Your task to perform on an android device: set the timer Image 0: 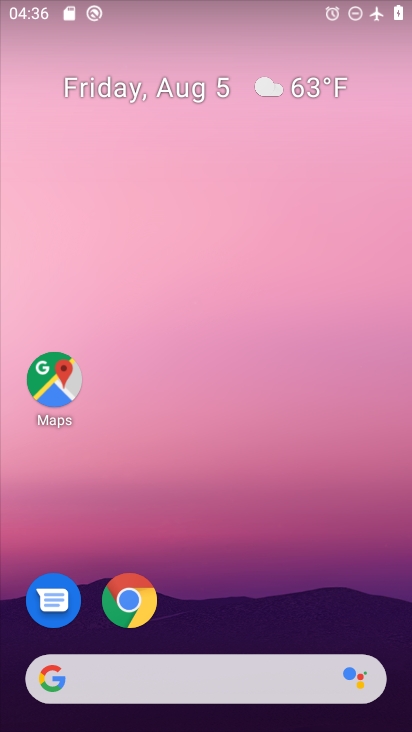
Step 0: drag from (206, 686) to (250, 180)
Your task to perform on an android device: set the timer Image 1: 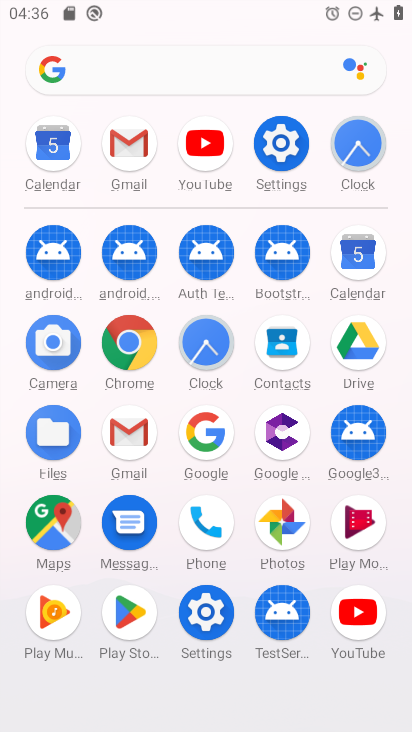
Step 1: click (360, 143)
Your task to perform on an android device: set the timer Image 2: 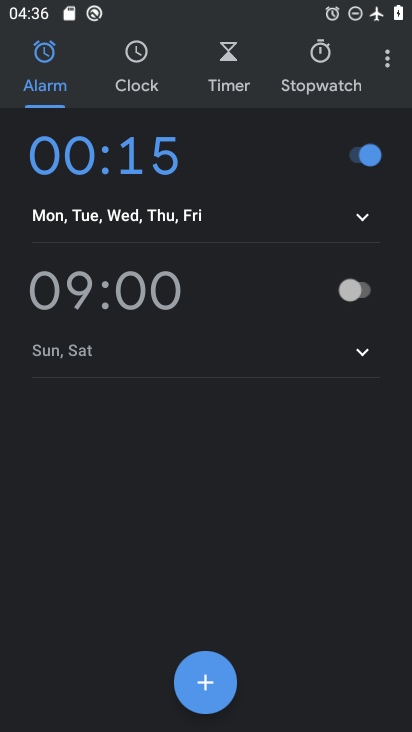
Step 2: click (229, 50)
Your task to perform on an android device: set the timer Image 3: 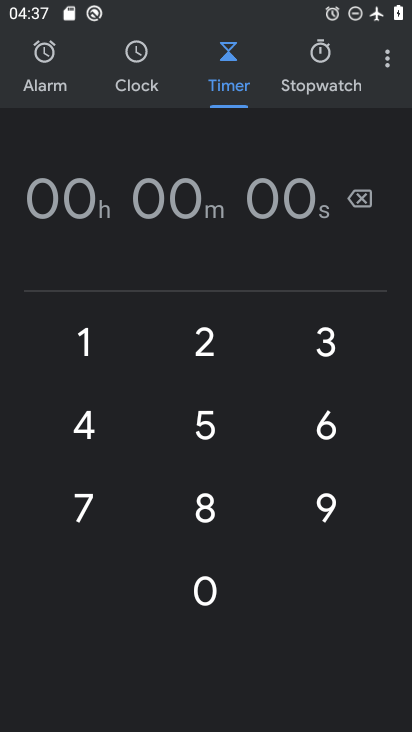
Step 3: click (90, 339)
Your task to perform on an android device: set the timer Image 4: 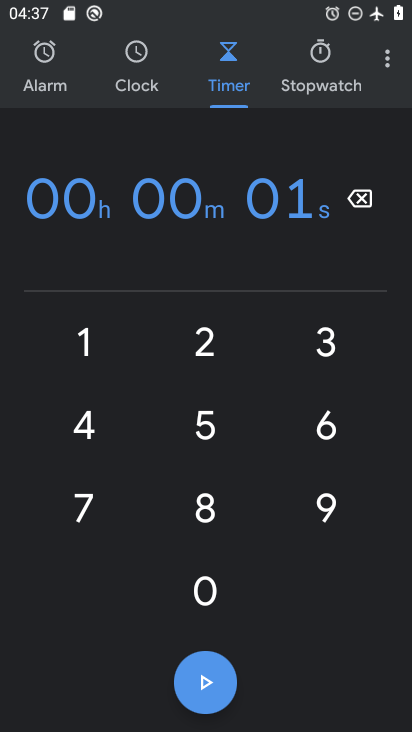
Step 4: click (232, 357)
Your task to perform on an android device: set the timer Image 5: 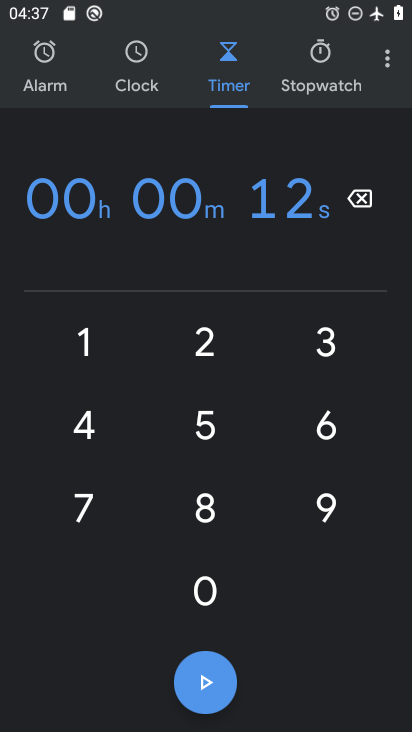
Step 5: click (328, 433)
Your task to perform on an android device: set the timer Image 6: 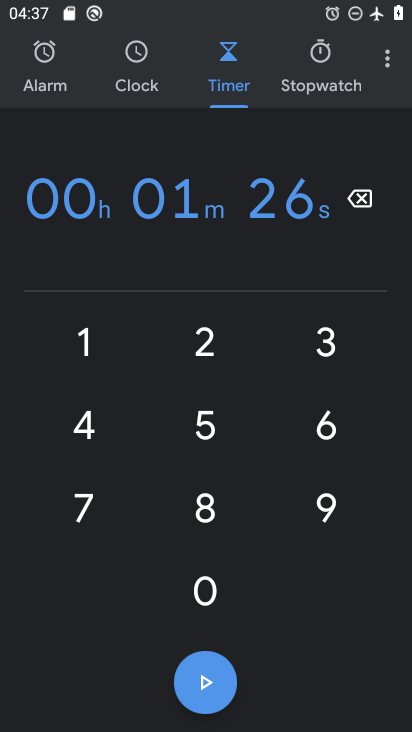
Step 6: click (183, 684)
Your task to perform on an android device: set the timer Image 7: 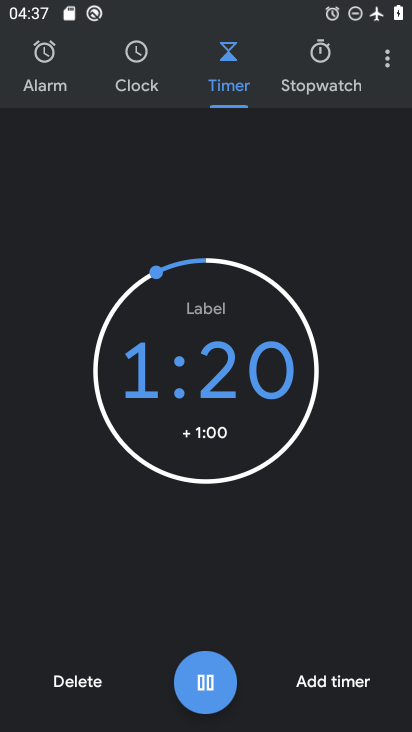
Step 7: click (183, 684)
Your task to perform on an android device: set the timer Image 8: 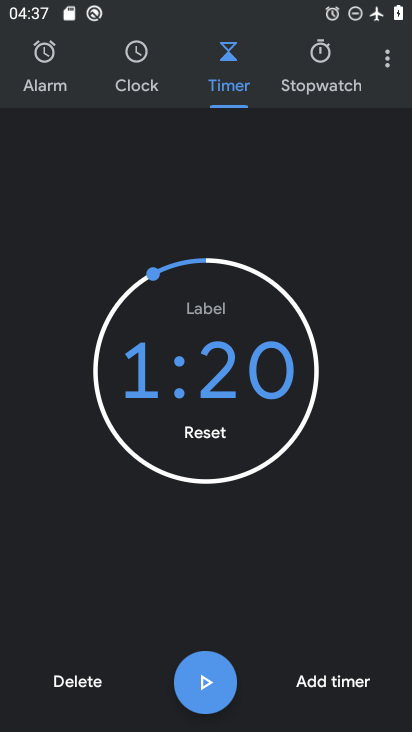
Step 8: task complete